Your task to perform on an android device: set an alarm Image 0: 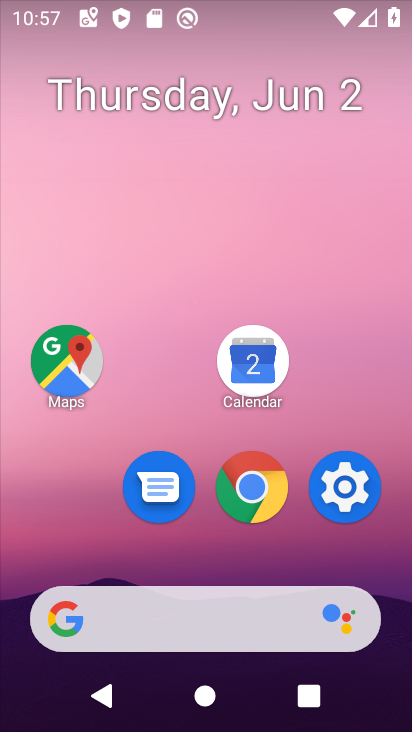
Step 0: drag from (230, 667) to (239, 150)
Your task to perform on an android device: set an alarm Image 1: 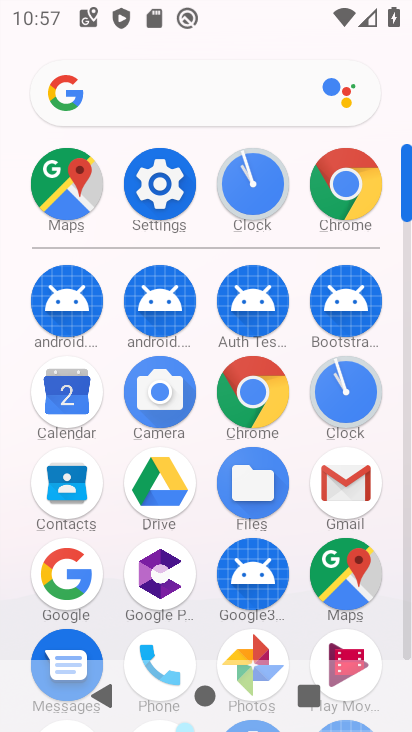
Step 1: click (250, 202)
Your task to perform on an android device: set an alarm Image 2: 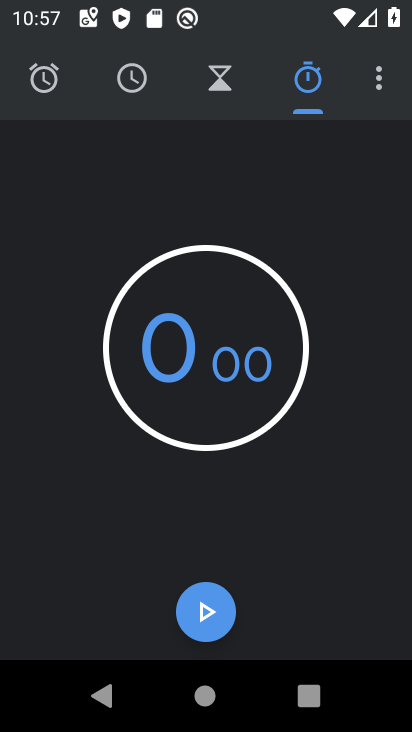
Step 2: click (40, 78)
Your task to perform on an android device: set an alarm Image 3: 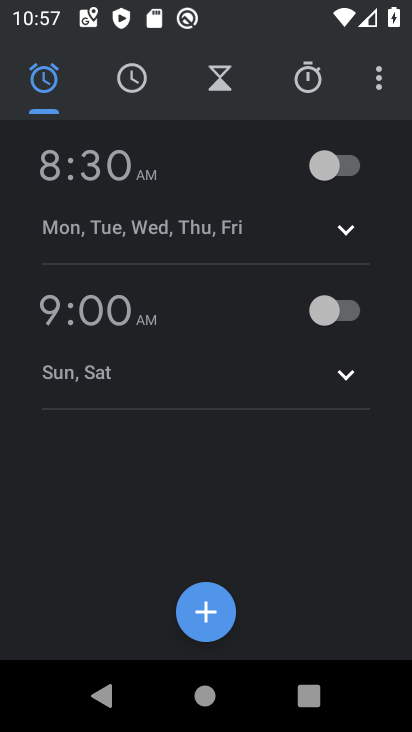
Step 3: click (362, 164)
Your task to perform on an android device: set an alarm Image 4: 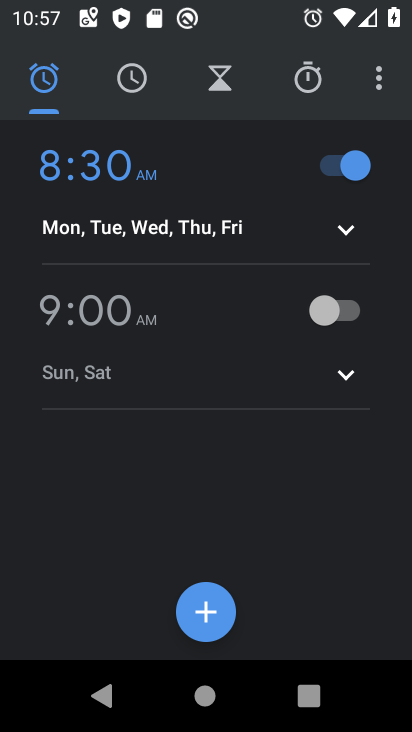
Step 4: task complete